Your task to perform on an android device: Open the map Image 0: 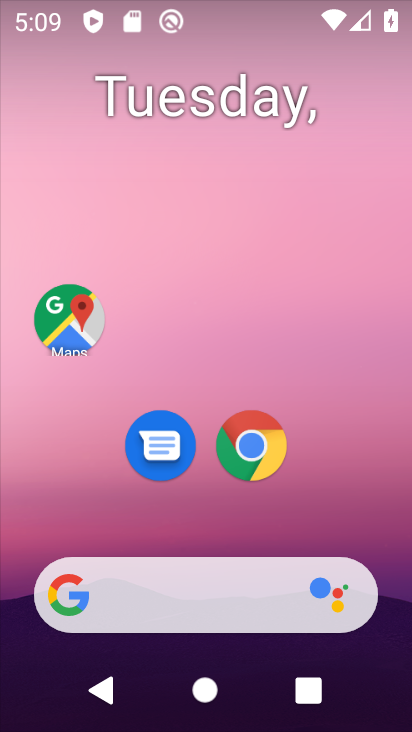
Step 0: drag from (294, 483) to (324, 159)
Your task to perform on an android device: Open the map Image 1: 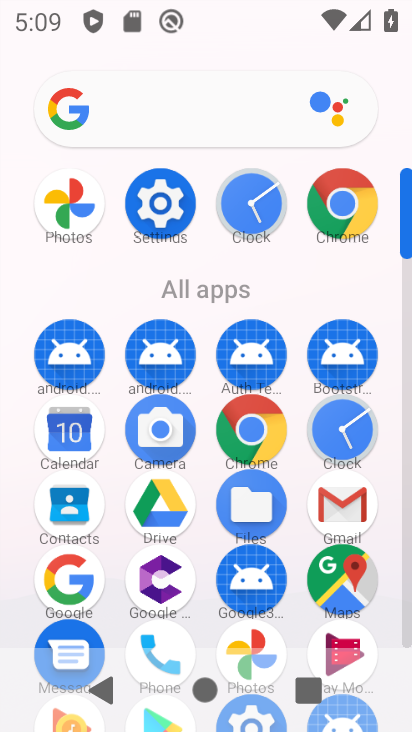
Step 1: drag from (228, 257) to (275, 66)
Your task to perform on an android device: Open the map Image 2: 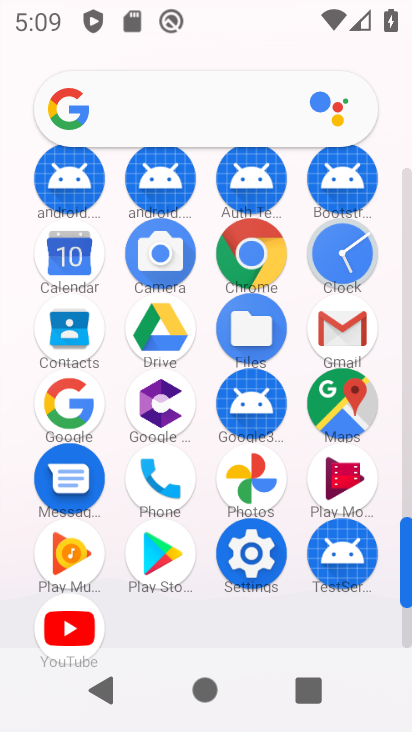
Step 2: click (333, 395)
Your task to perform on an android device: Open the map Image 3: 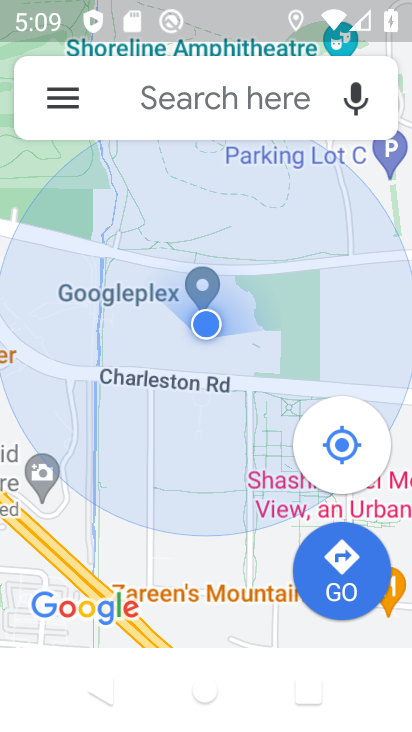
Step 3: task complete